Your task to perform on an android device: Open Android settings Image 0: 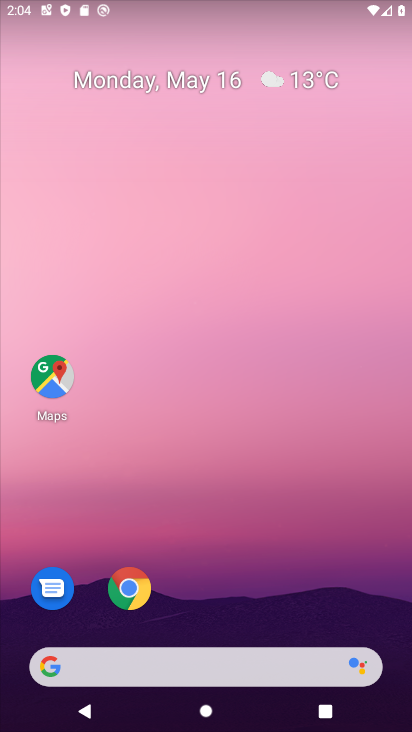
Step 0: drag from (223, 488) to (253, 30)
Your task to perform on an android device: Open Android settings Image 1: 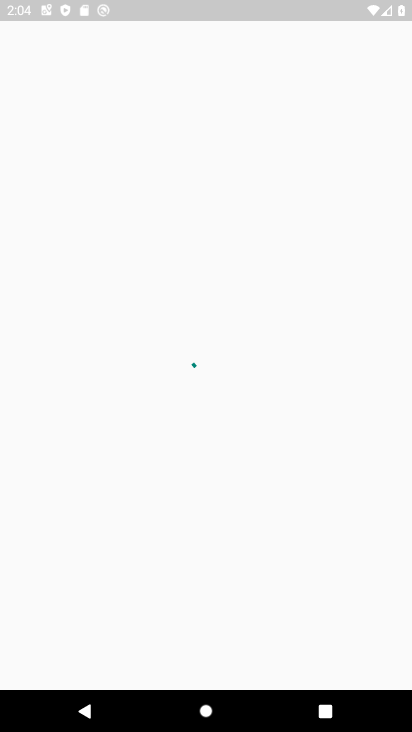
Step 1: press home button
Your task to perform on an android device: Open Android settings Image 2: 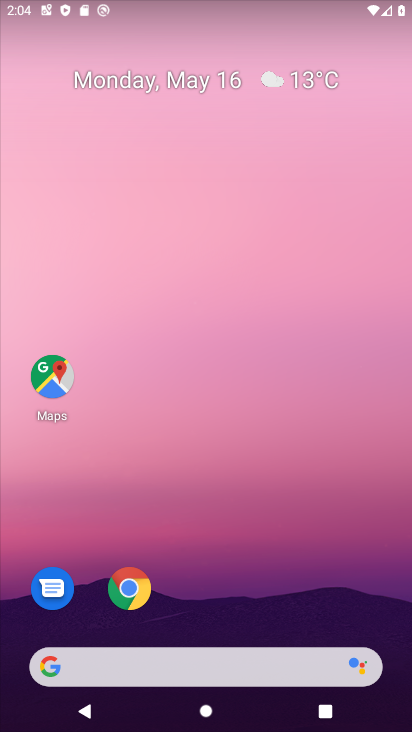
Step 2: drag from (316, 679) to (290, 75)
Your task to perform on an android device: Open Android settings Image 3: 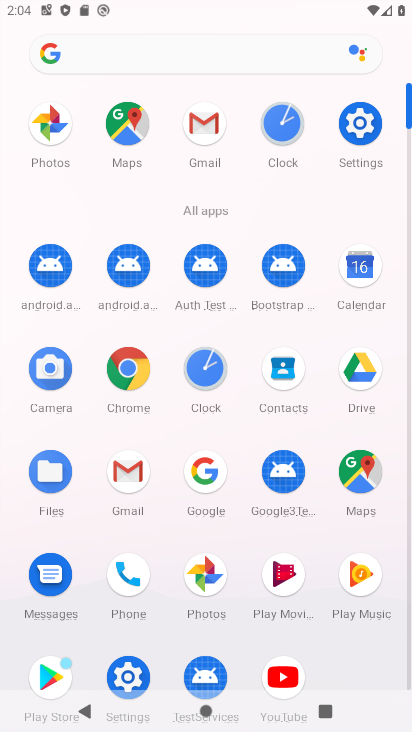
Step 3: click (354, 125)
Your task to perform on an android device: Open Android settings Image 4: 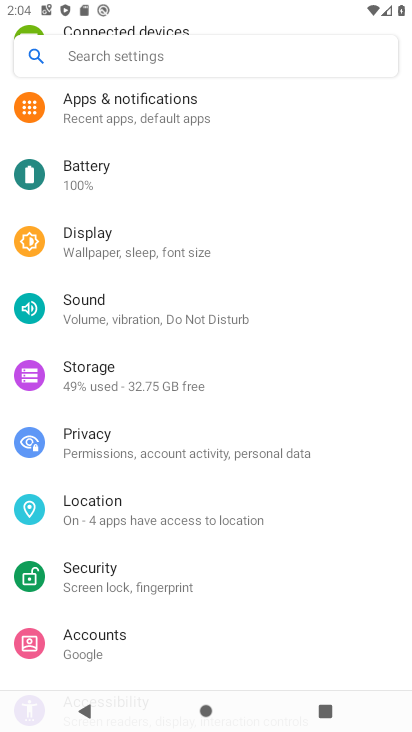
Step 4: drag from (232, 593) to (225, 289)
Your task to perform on an android device: Open Android settings Image 5: 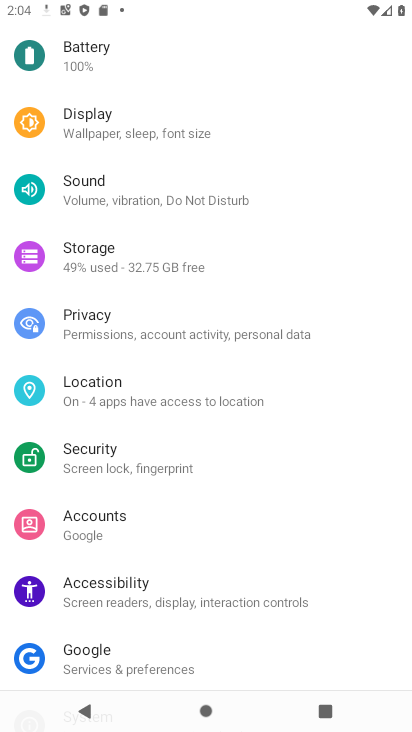
Step 5: drag from (230, 678) to (263, 365)
Your task to perform on an android device: Open Android settings Image 6: 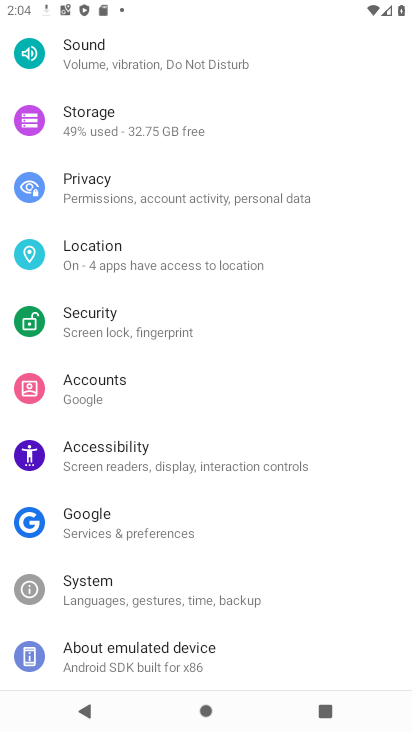
Step 6: click (246, 653)
Your task to perform on an android device: Open Android settings Image 7: 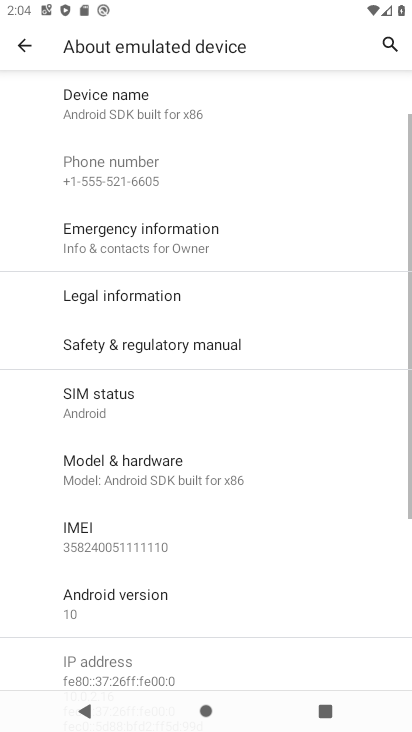
Step 7: click (163, 611)
Your task to perform on an android device: Open Android settings Image 8: 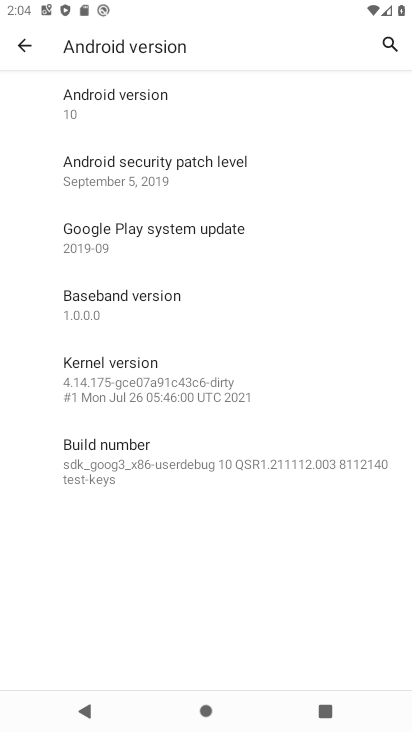
Step 8: task complete